Your task to perform on an android device: Go to wifi settings Image 0: 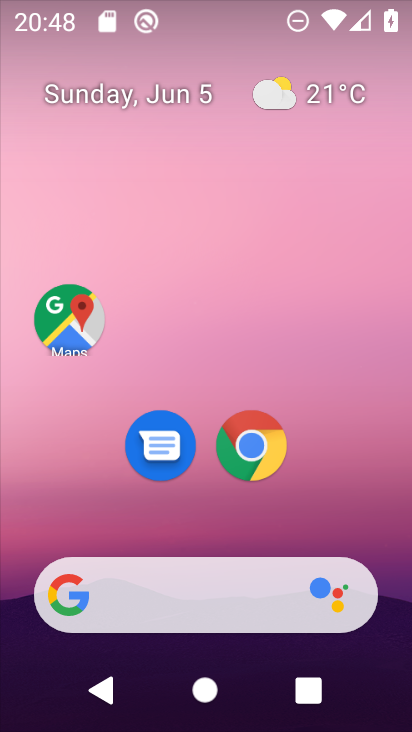
Step 0: press home button
Your task to perform on an android device: Go to wifi settings Image 1: 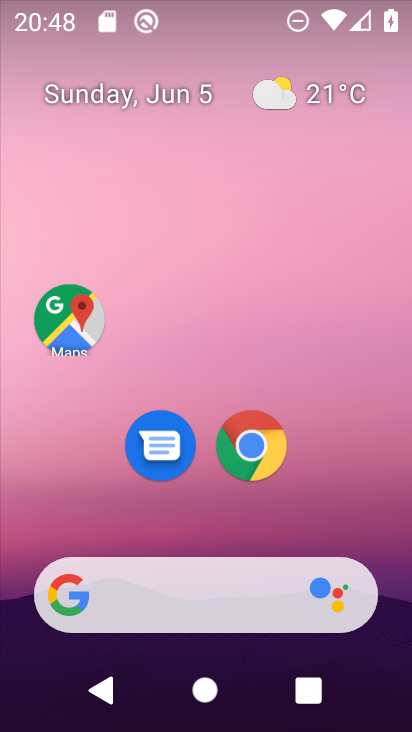
Step 1: drag from (337, 512) to (341, 152)
Your task to perform on an android device: Go to wifi settings Image 2: 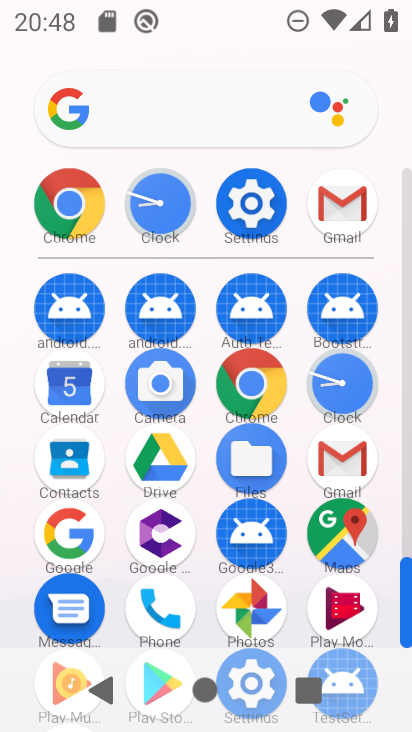
Step 2: click (260, 189)
Your task to perform on an android device: Go to wifi settings Image 3: 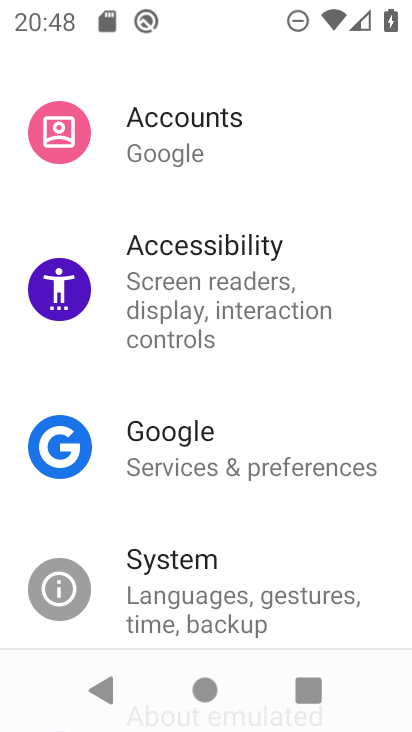
Step 3: drag from (333, 97) to (280, 690)
Your task to perform on an android device: Go to wifi settings Image 4: 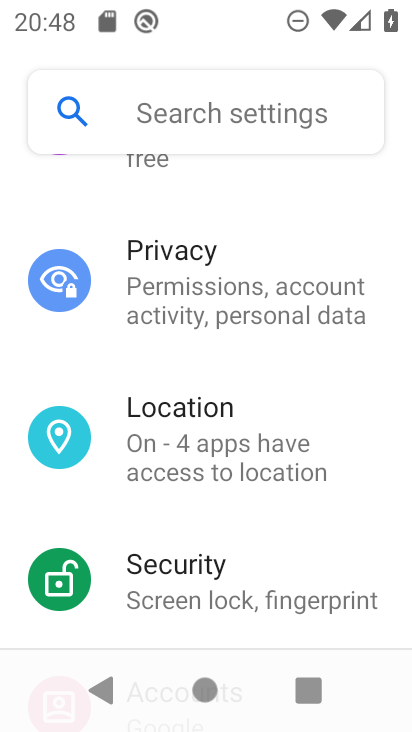
Step 4: drag from (344, 194) to (257, 715)
Your task to perform on an android device: Go to wifi settings Image 5: 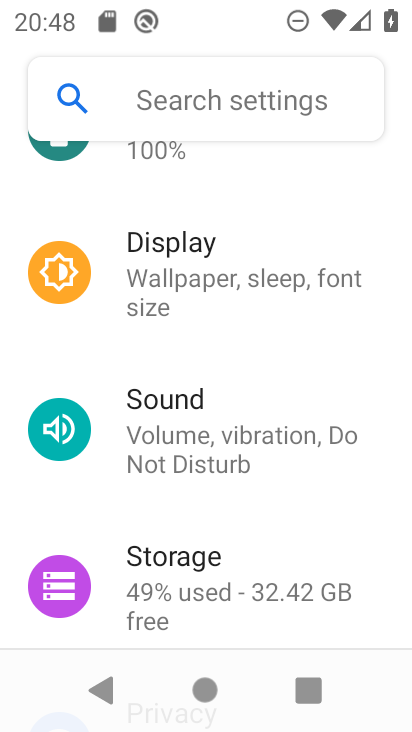
Step 5: drag from (96, 202) to (157, 730)
Your task to perform on an android device: Go to wifi settings Image 6: 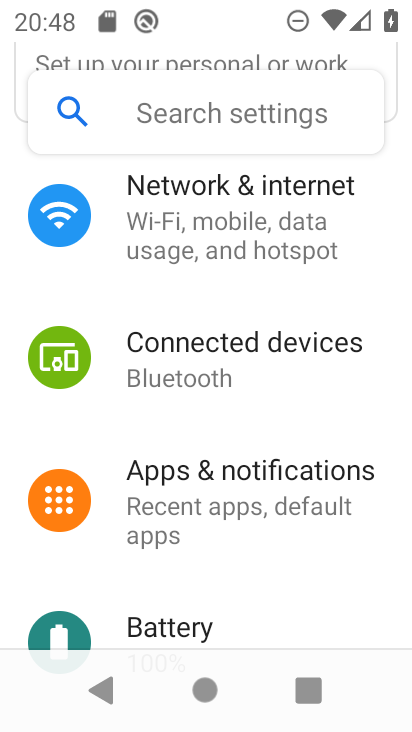
Step 6: click (158, 190)
Your task to perform on an android device: Go to wifi settings Image 7: 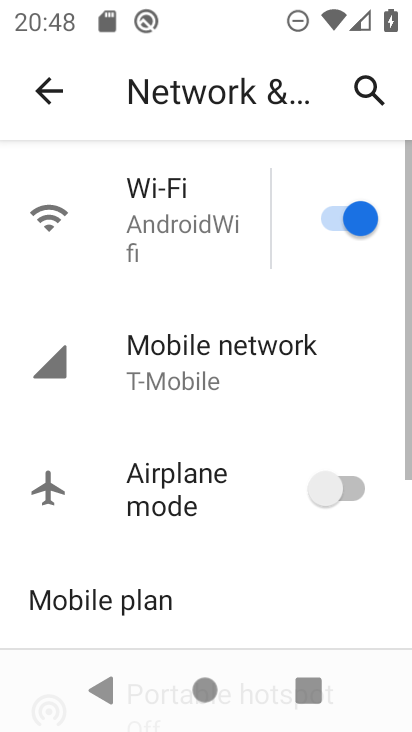
Step 7: task complete